Your task to perform on an android device: change the clock display to analog Image 0: 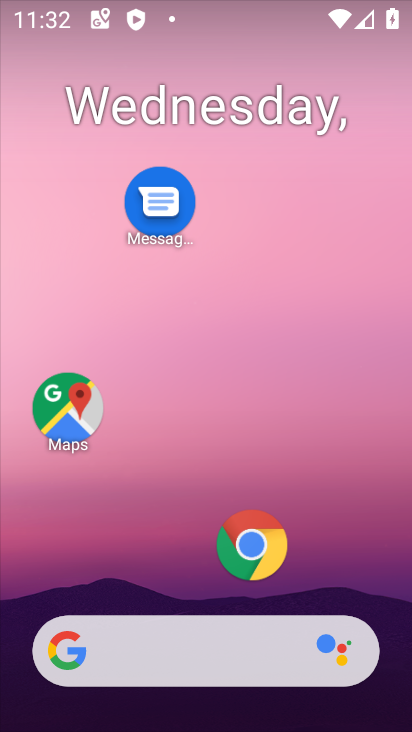
Step 0: drag from (172, 567) to (197, 234)
Your task to perform on an android device: change the clock display to analog Image 1: 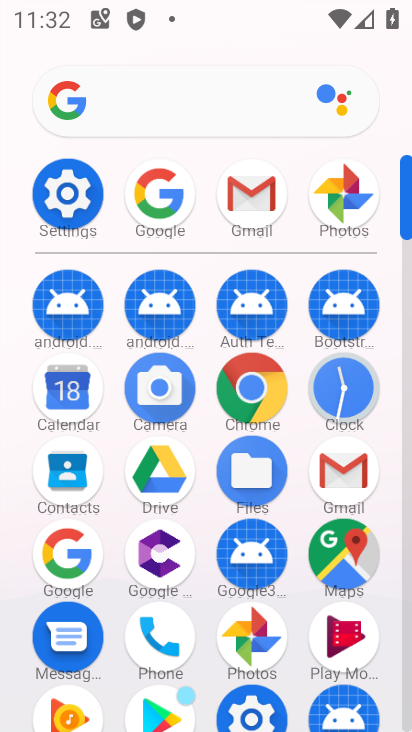
Step 1: click (339, 407)
Your task to perform on an android device: change the clock display to analog Image 2: 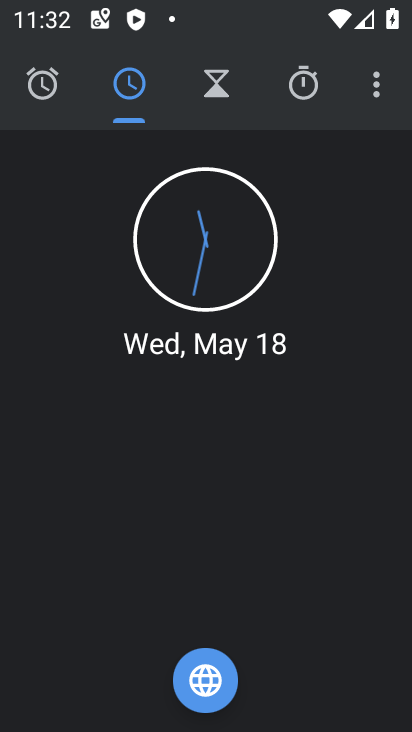
Step 2: click (384, 85)
Your task to perform on an android device: change the clock display to analog Image 3: 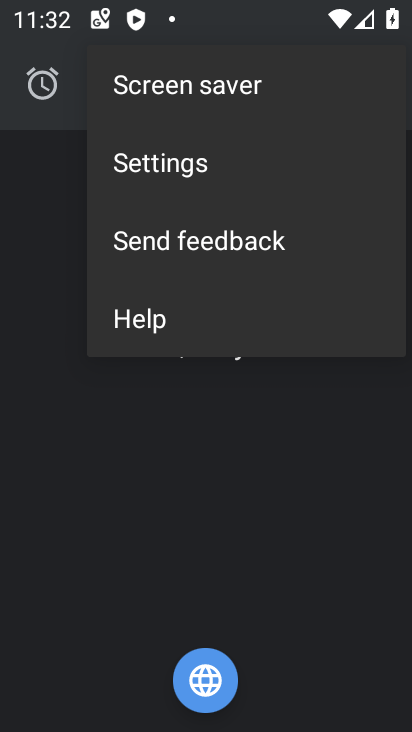
Step 3: click (183, 169)
Your task to perform on an android device: change the clock display to analog Image 4: 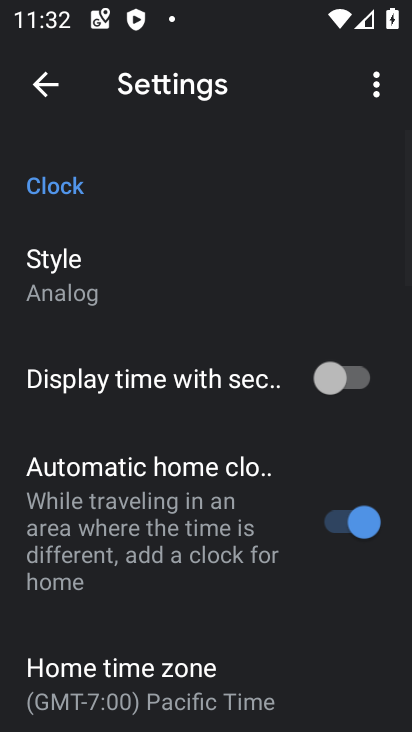
Step 4: click (120, 279)
Your task to perform on an android device: change the clock display to analog Image 5: 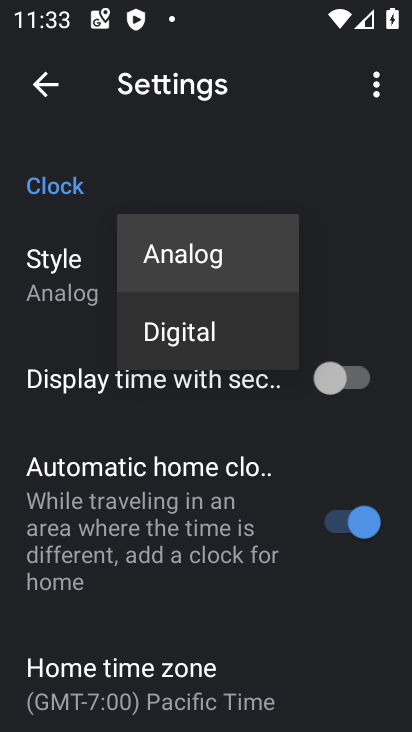
Step 5: task complete